Your task to perform on an android device: Open my contact list Image 0: 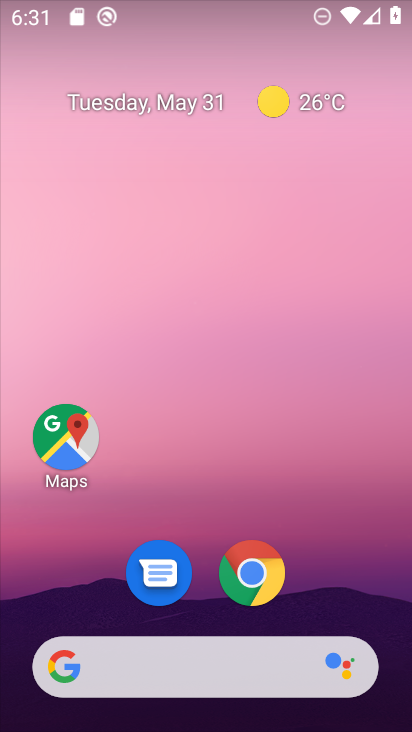
Step 0: drag from (380, 630) to (215, 14)
Your task to perform on an android device: Open my contact list Image 1: 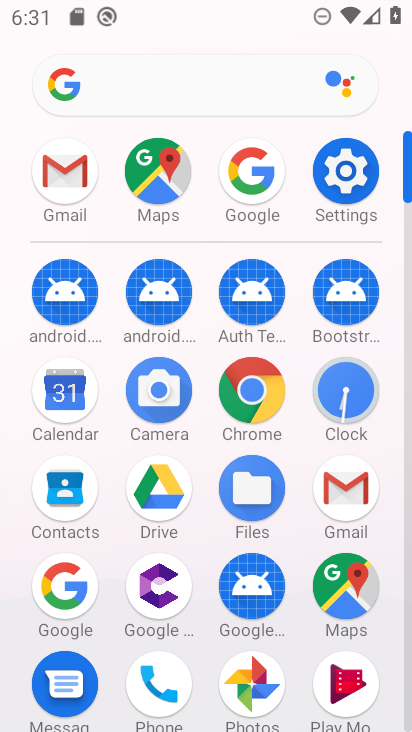
Step 1: click (79, 505)
Your task to perform on an android device: Open my contact list Image 2: 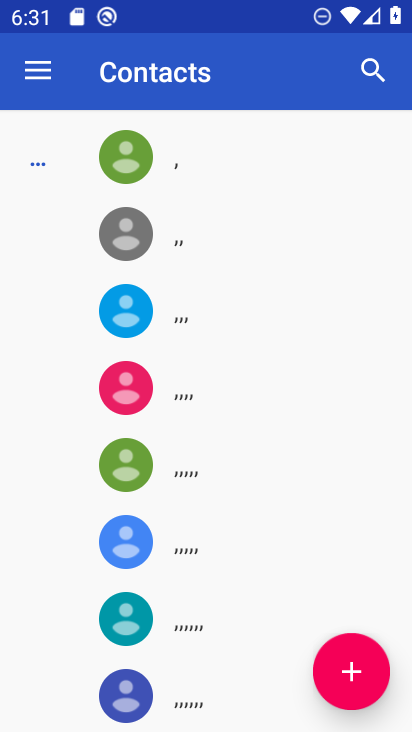
Step 2: task complete